Your task to perform on an android device: Clear the cart on target. Image 0: 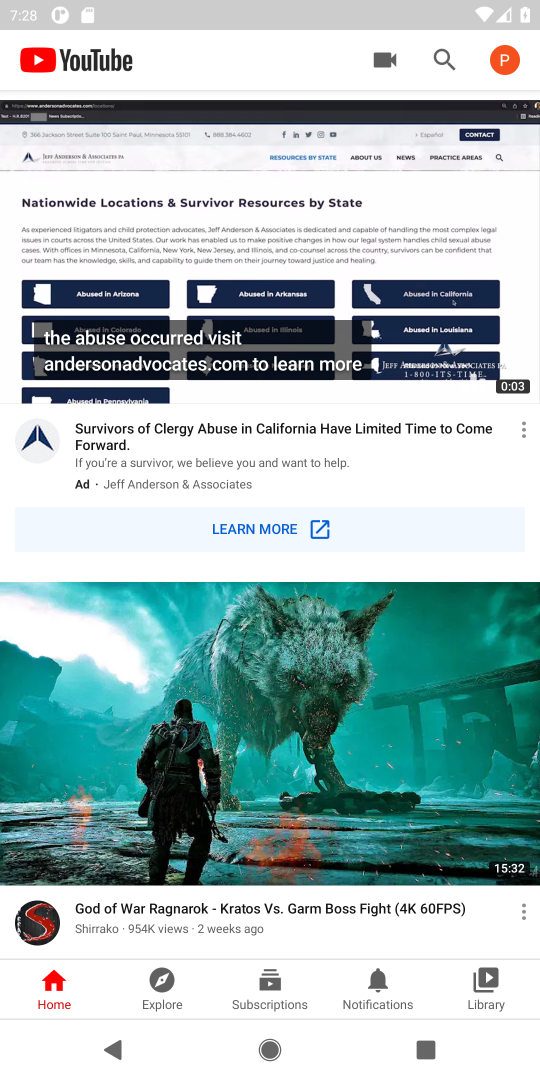
Step 0: press home button
Your task to perform on an android device: Clear the cart on target. Image 1: 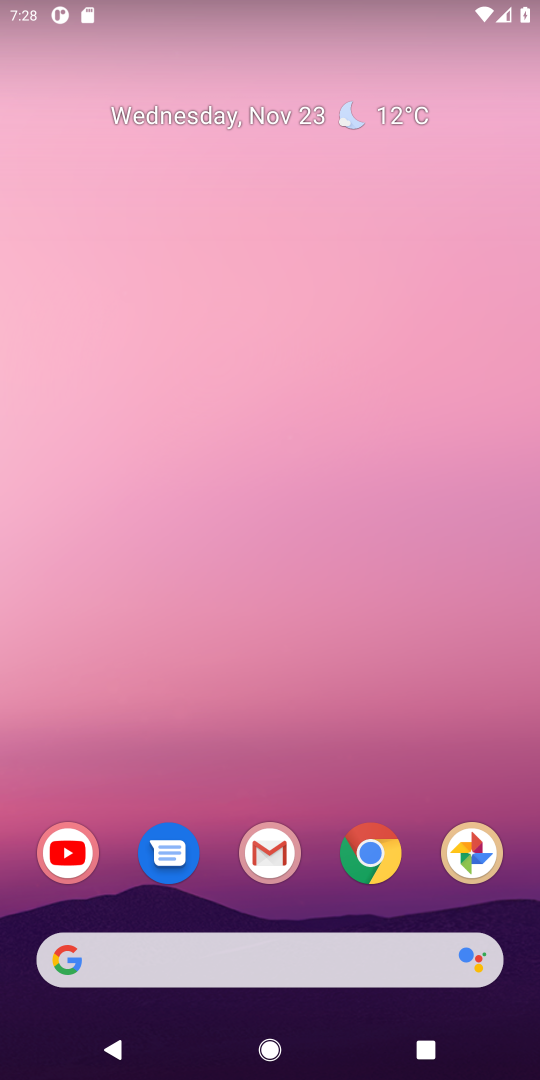
Step 1: click (374, 849)
Your task to perform on an android device: Clear the cart on target. Image 2: 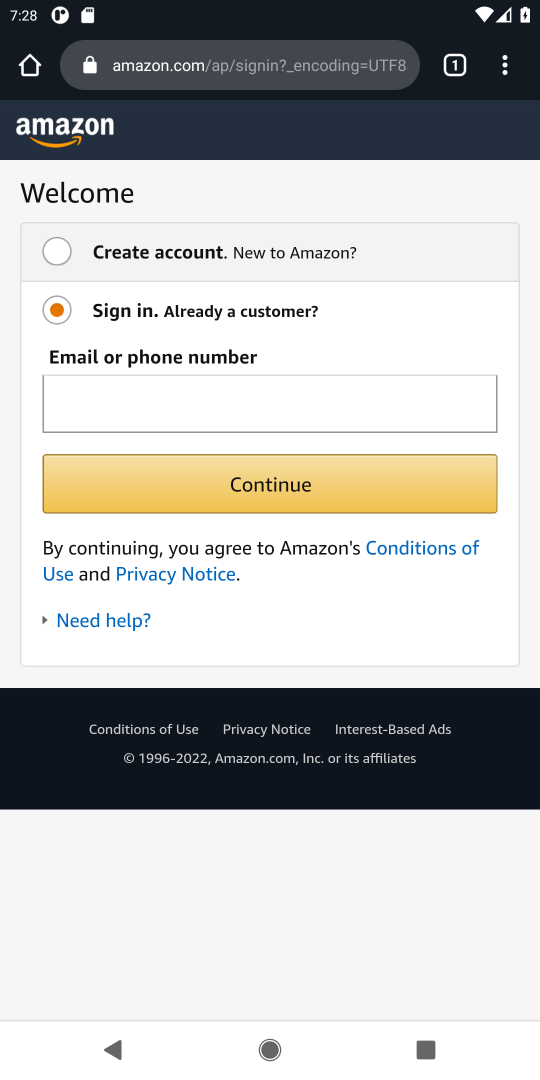
Step 2: click (209, 69)
Your task to perform on an android device: Clear the cart on target. Image 3: 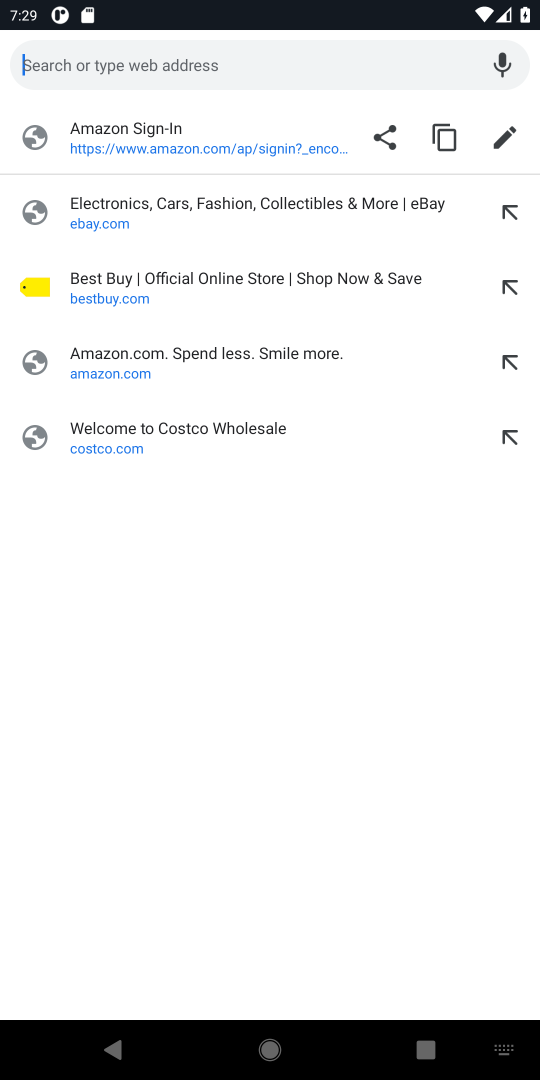
Step 3: type "target.com"
Your task to perform on an android device: Clear the cart on target. Image 4: 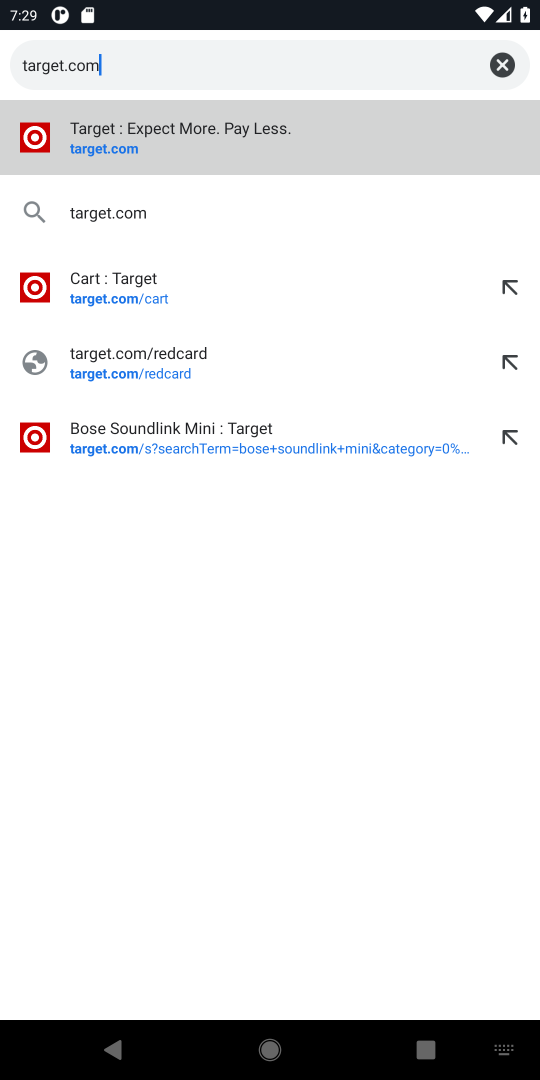
Step 4: click (99, 154)
Your task to perform on an android device: Clear the cart on target. Image 5: 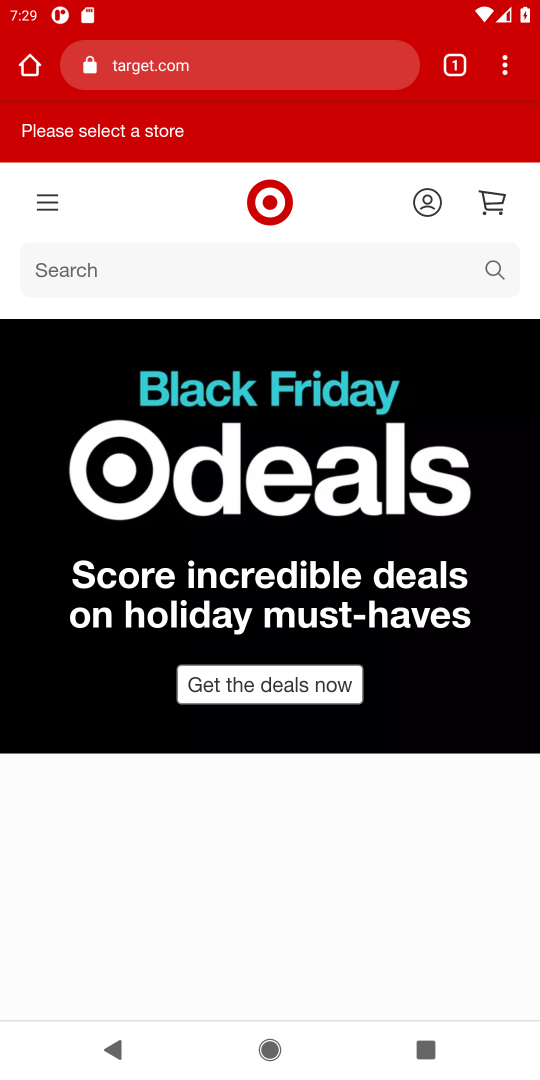
Step 5: click (492, 198)
Your task to perform on an android device: Clear the cart on target. Image 6: 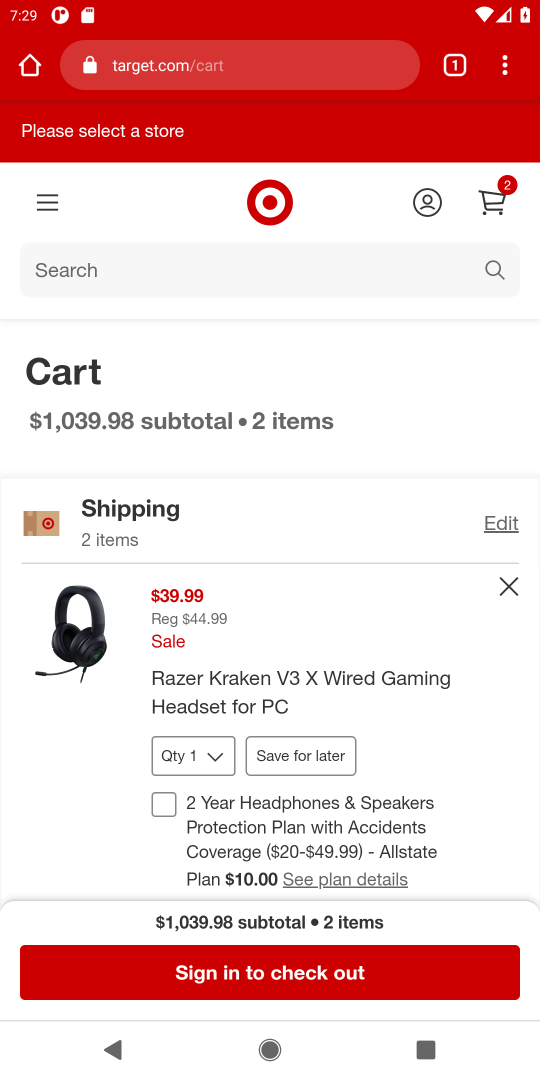
Step 6: click (506, 592)
Your task to perform on an android device: Clear the cart on target. Image 7: 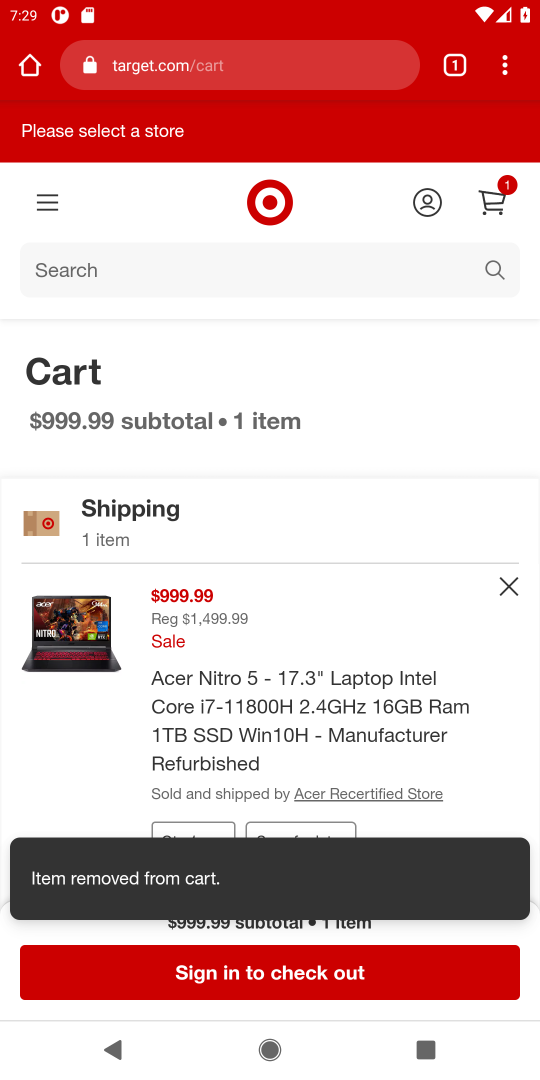
Step 7: click (506, 592)
Your task to perform on an android device: Clear the cart on target. Image 8: 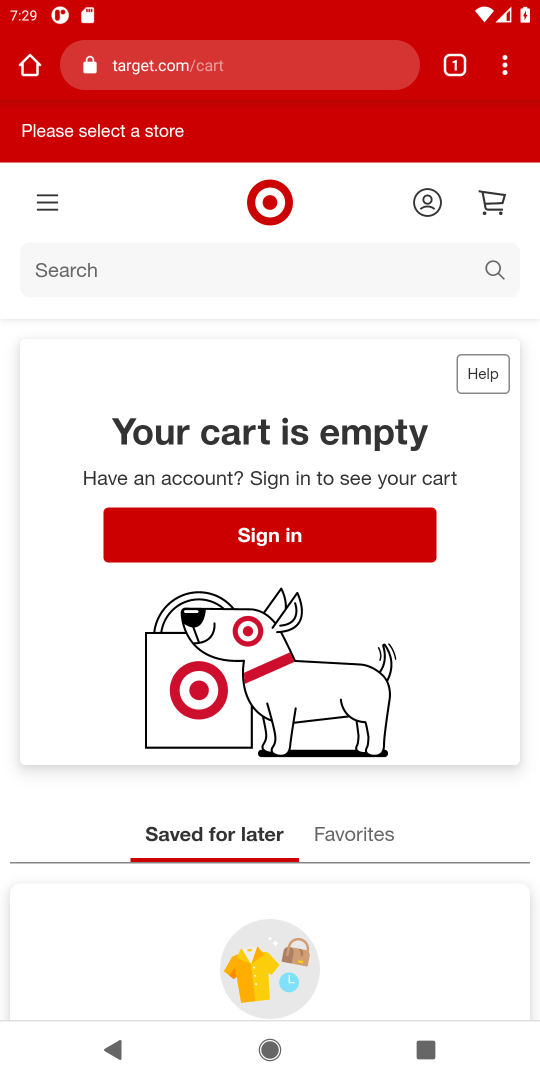
Step 8: task complete